Your task to perform on an android device: View the shopping cart on walmart. Search for "usb-a to usb-b" on walmart, select the first entry, add it to the cart, then select checkout. Image 0: 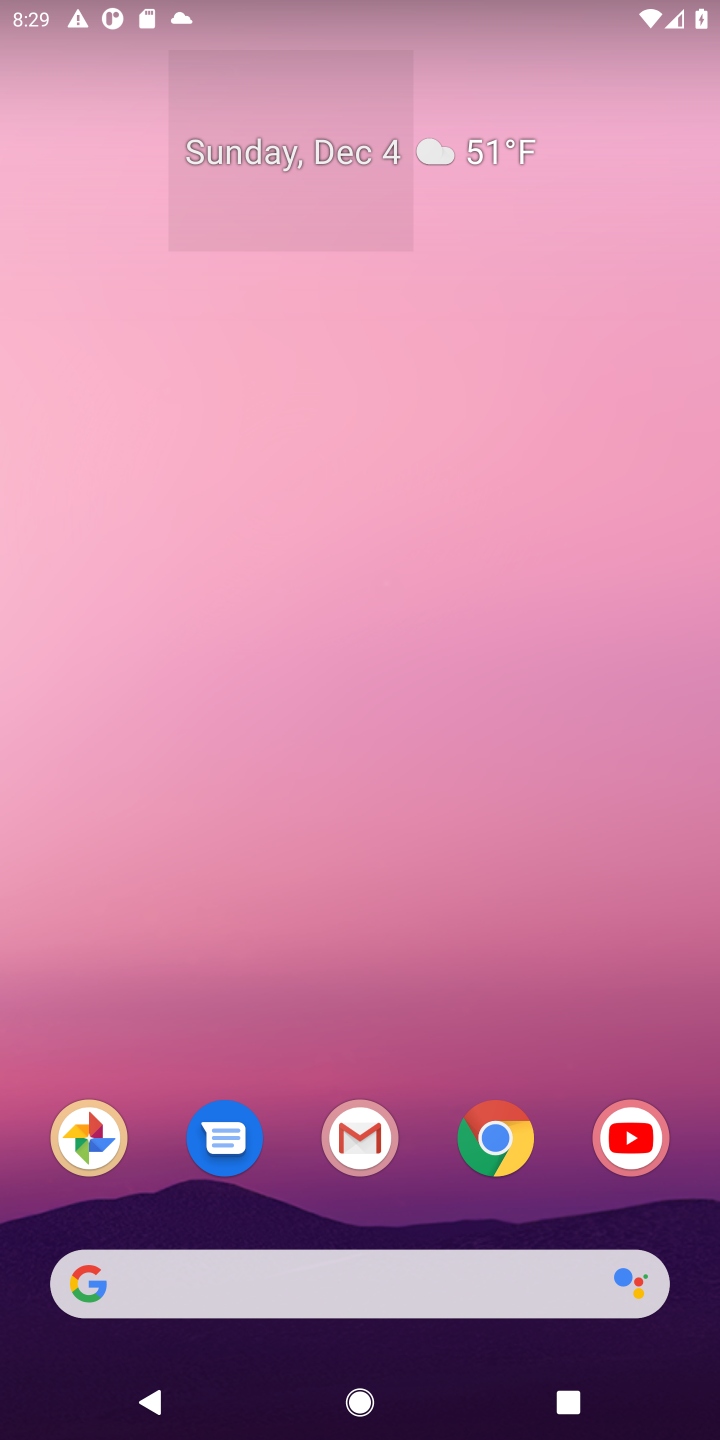
Step 0: click (511, 1161)
Your task to perform on an android device: View the shopping cart on walmart. Search for "usb-a to usb-b" on walmart, select the first entry, add it to the cart, then select checkout. Image 1: 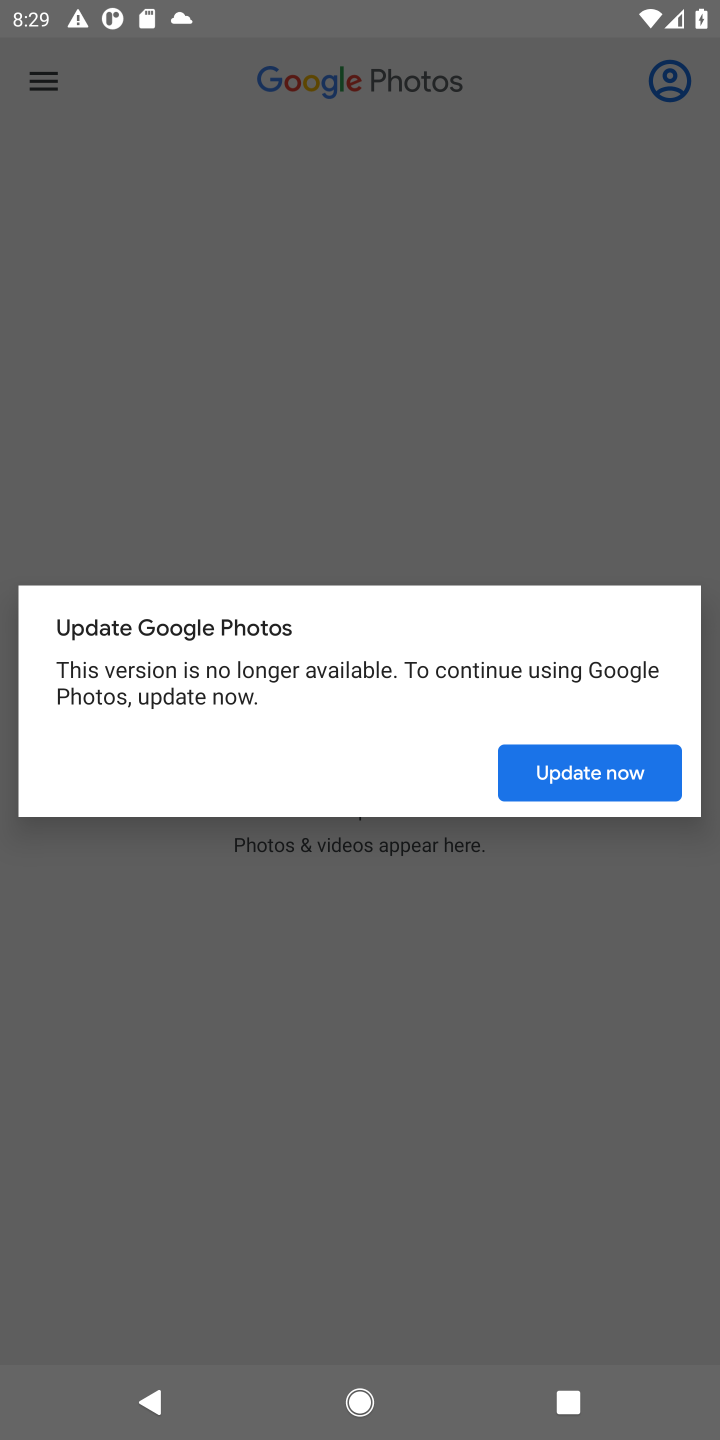
Step 1: press home button
Your task to perform on an android device: View the shopping cart on walmart. Search for "usb-a to usb-b" on walmart, select the first entry, add it to the cart, then select checkout. Image 2: 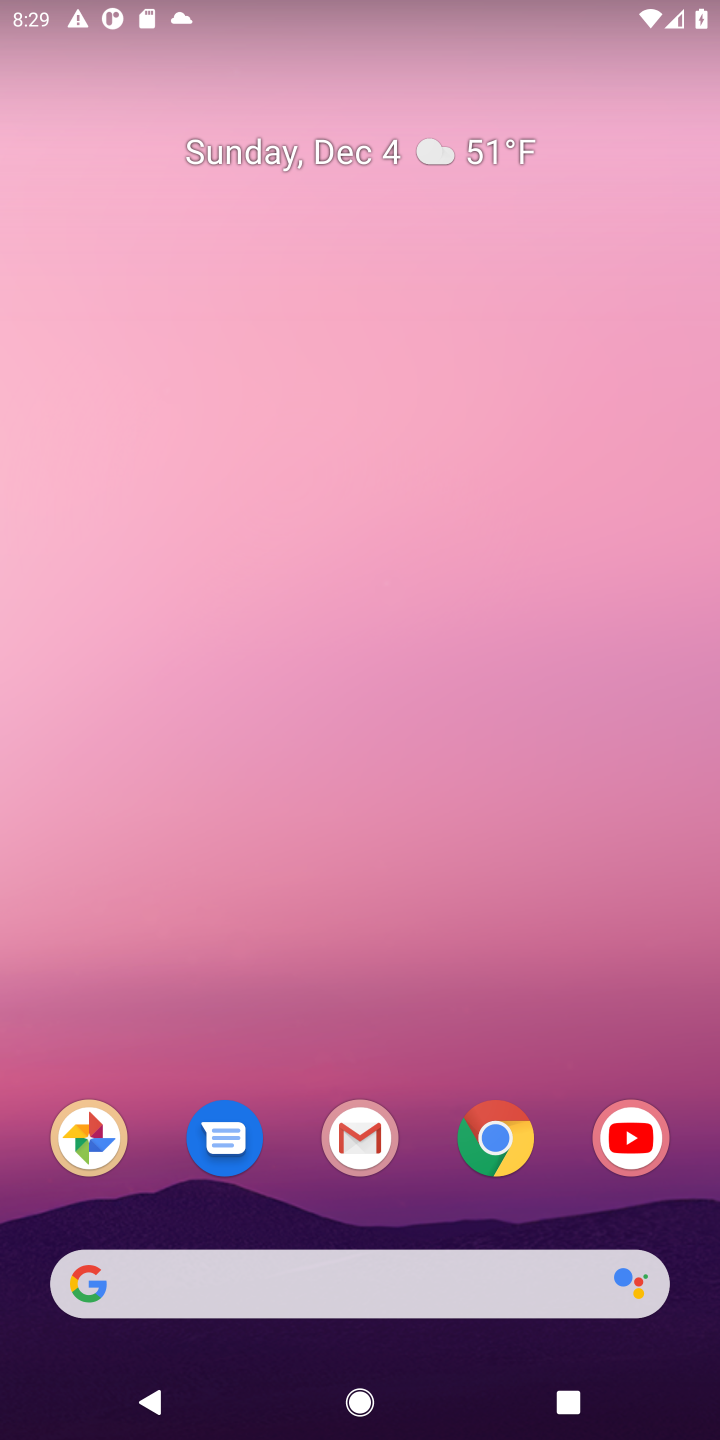
Step 2: click (487, 1137)
Your task to perform on an android device: View the shopping cart on walmart. Search for "usb-a to usb-b" on walmart, select the first entry, add it to the cart, then select checkout. Image 3: 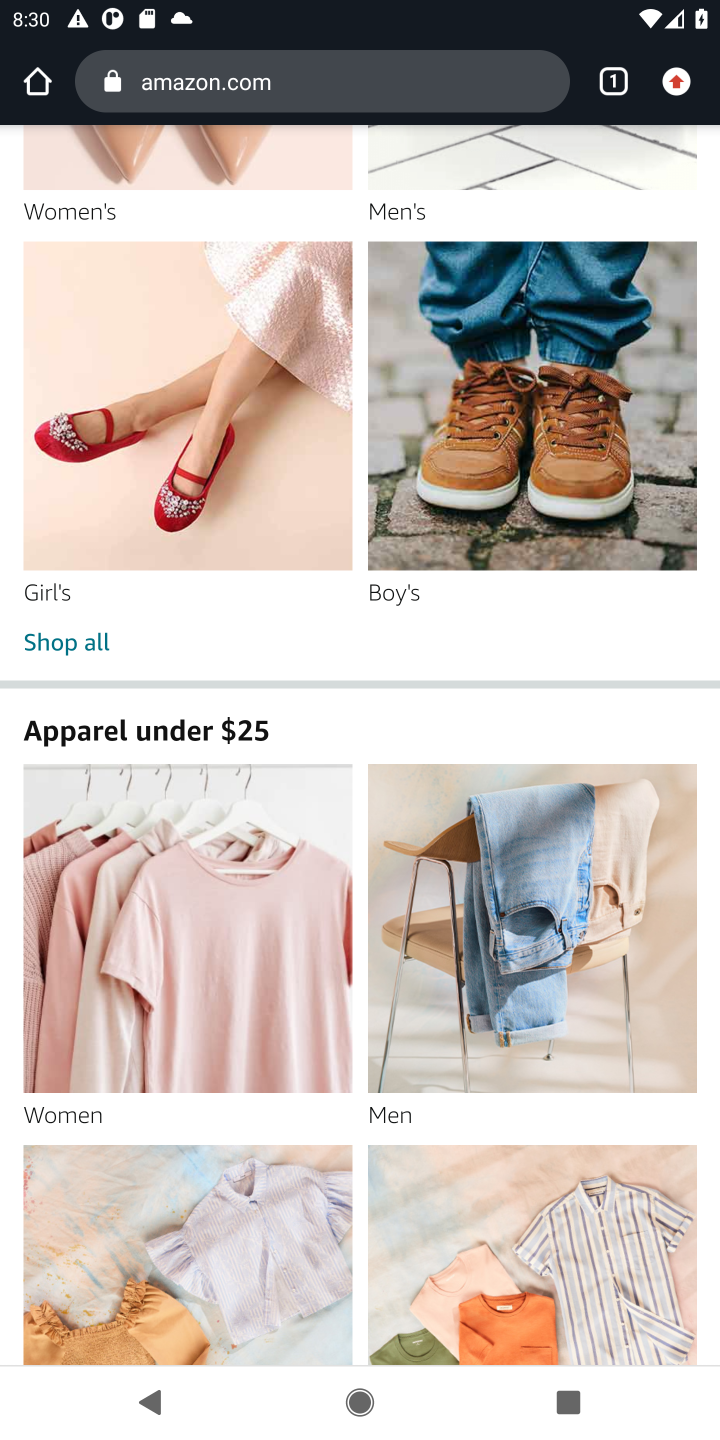
Step 3: click (473, 73)
Your task to perform on an android device: View the shopping cart on walmart. Search for "usb-a to usb-b" on walmart, select the first entry, add it to the cart, then select checkout. Image 4: 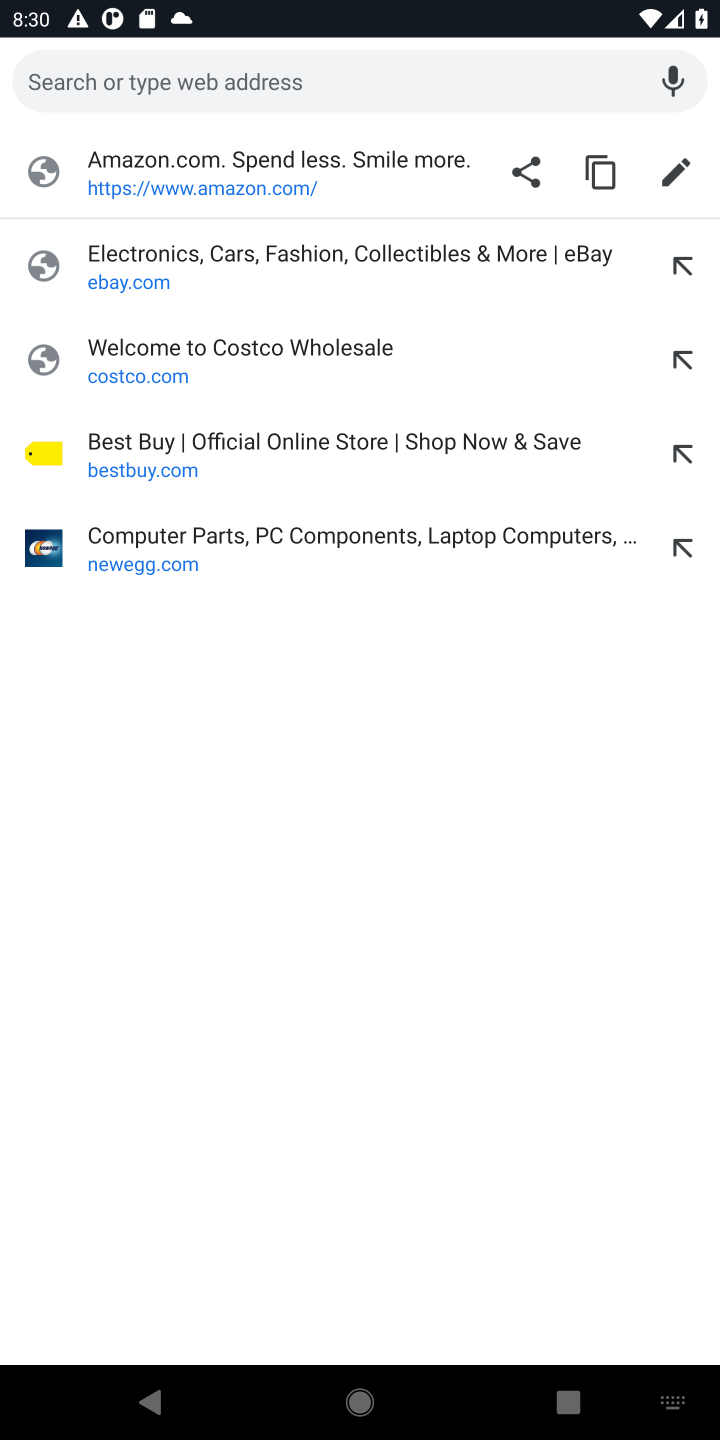
Step 4: press enter
Your task to perform on an android device: View the shopping cart on walmart. Search for "usb-a to usb-b" on walmart, select the first entry, add it to the cart, then select checkout. Image 5: 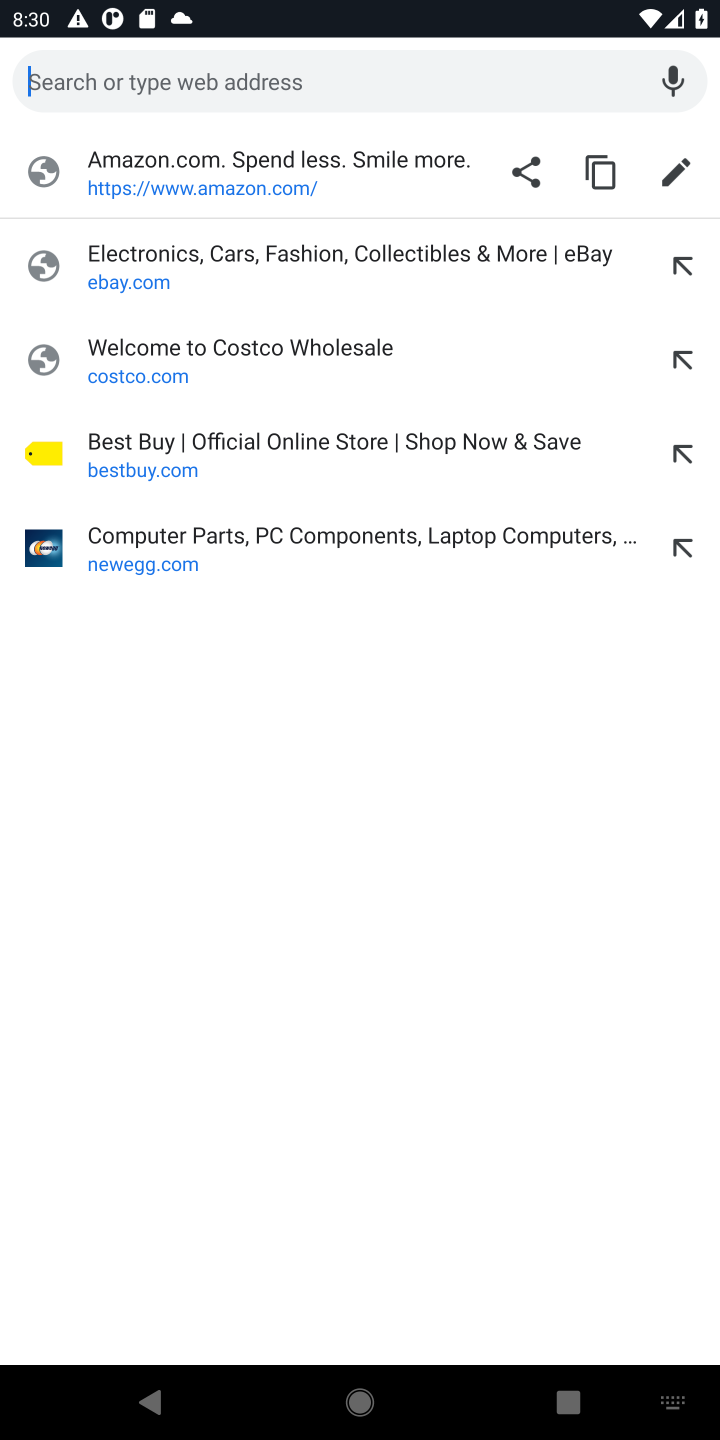
Step 5: type "walmart"
Your task to perform on an android device: View the shopping cart on walmart. Search for "usb-a to usb-b" on walmart, select the first entry, add it to the cart, then select checkout. Image 6: 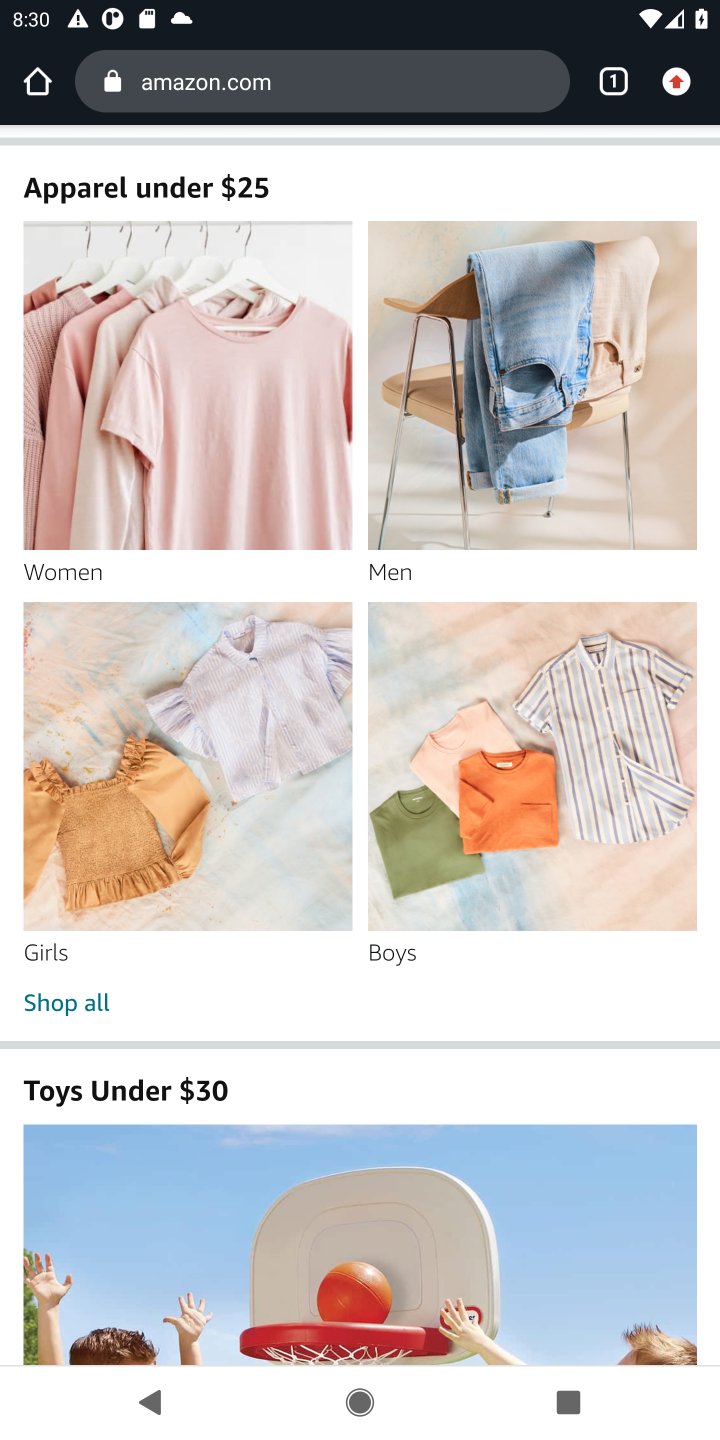
Step 6: click (396, 92)
Your task to perform on an android device: View the shopping cart on walmart. Search for "usb-a to usb-b" on walmart, select the first entry, add it to the cart, then select checkout. Image 7: 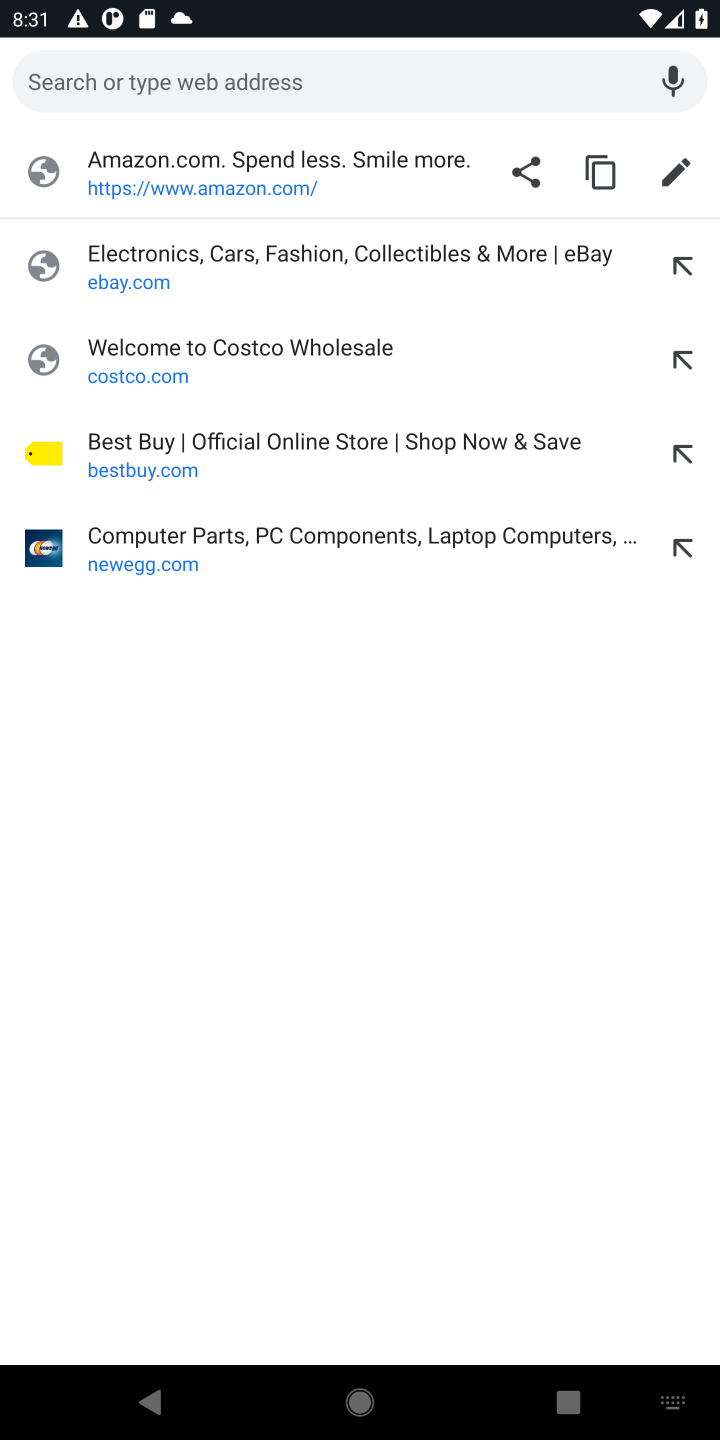
Step 7: type "walmart"
Your task to perform on an android device: View the shopping cart on walmart. Search for "usb-a to usb-b" on walmart, select the first entry, add it to the cart, then select checkout. Image 8: 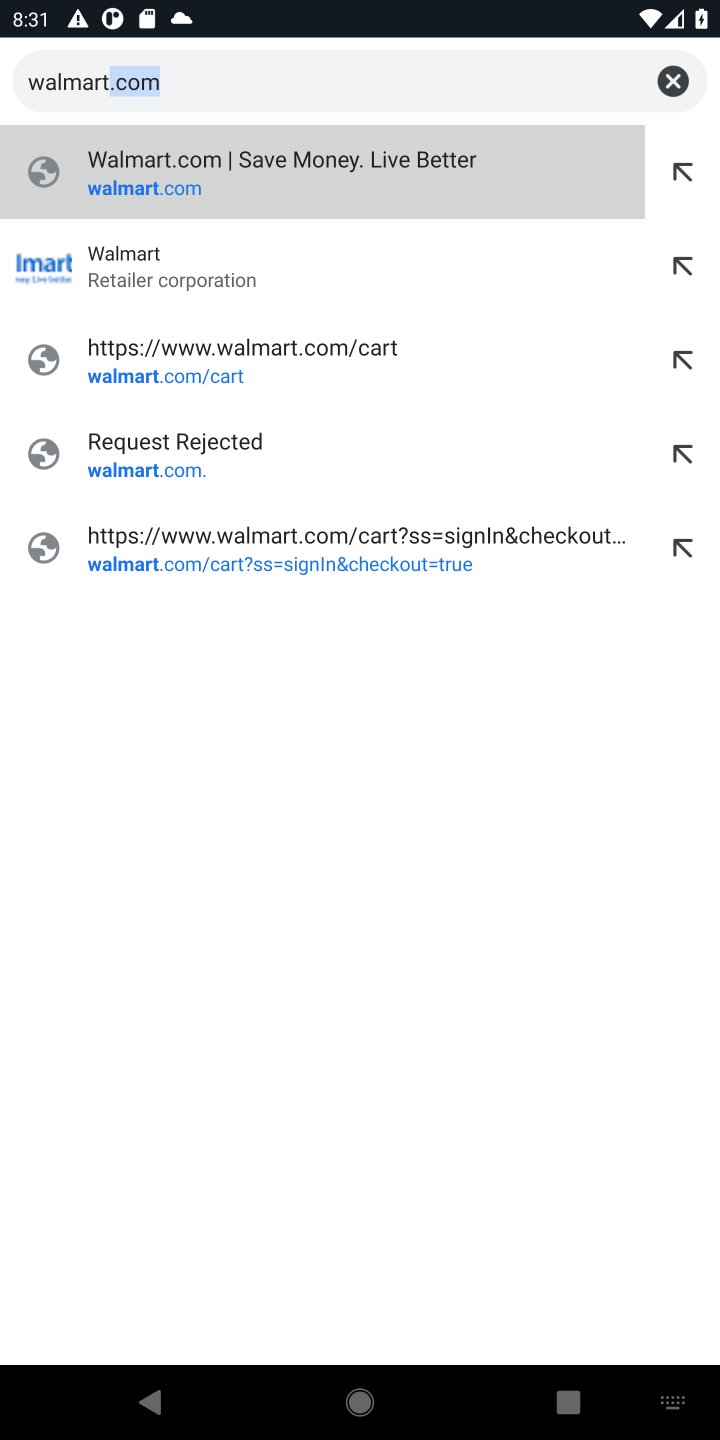
Step 8: press enter
Your task to perform on an android device: View the shopping cart on walmart. Search for "usb-a to usb-b" on walmart, select the first entry, add it to the cart, then select checkout. Image 9: 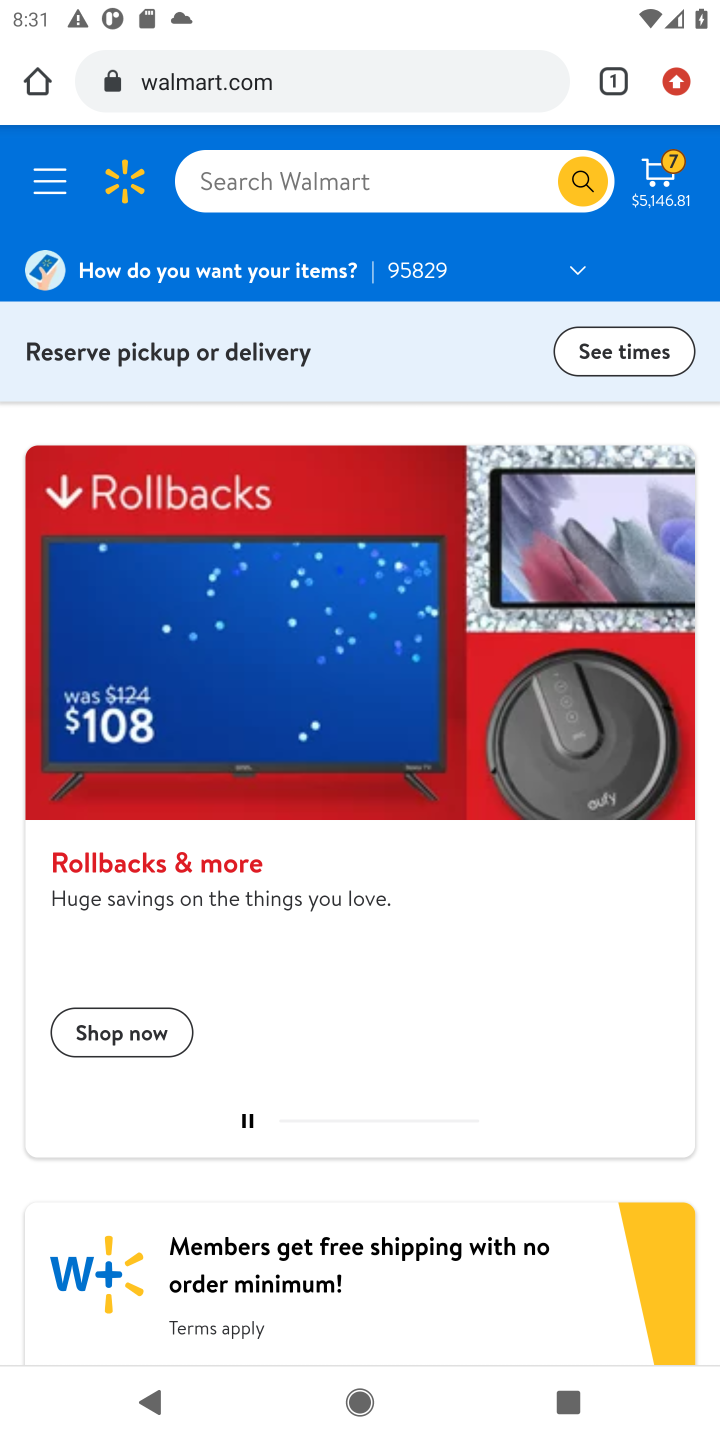
Step 9: click (641, 179)
Your task to perform on an android device: View the shopping cart on walmart. Search for "usb-a to usb-b" on walmart, select the first entry, add it to the cart, then select checkout. Image 10: 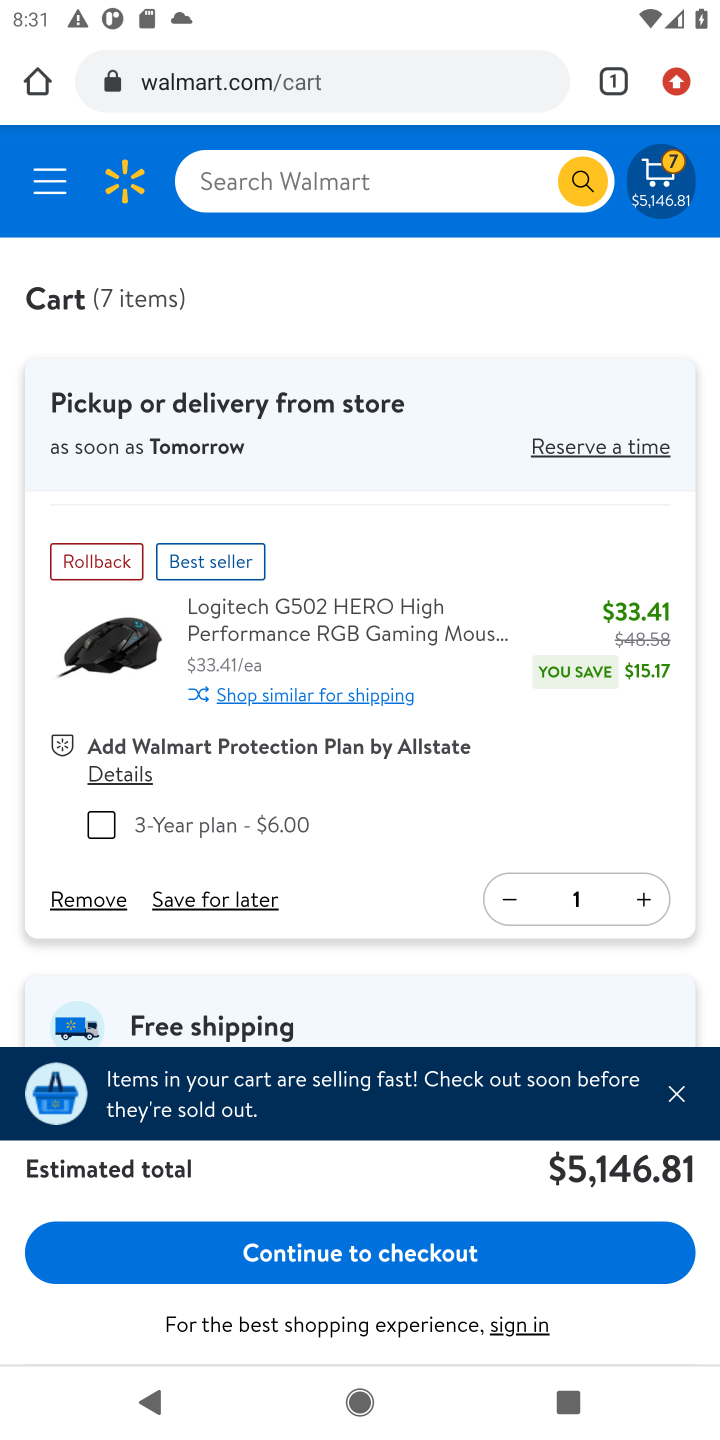
Step 10: click (491, 184)
Your task to perform on an android device: View the shopping cart on walmart. Search for "usb-a to usb-b" on walmart, select the first entry, add it to the cart, then select checkout. Image 11: 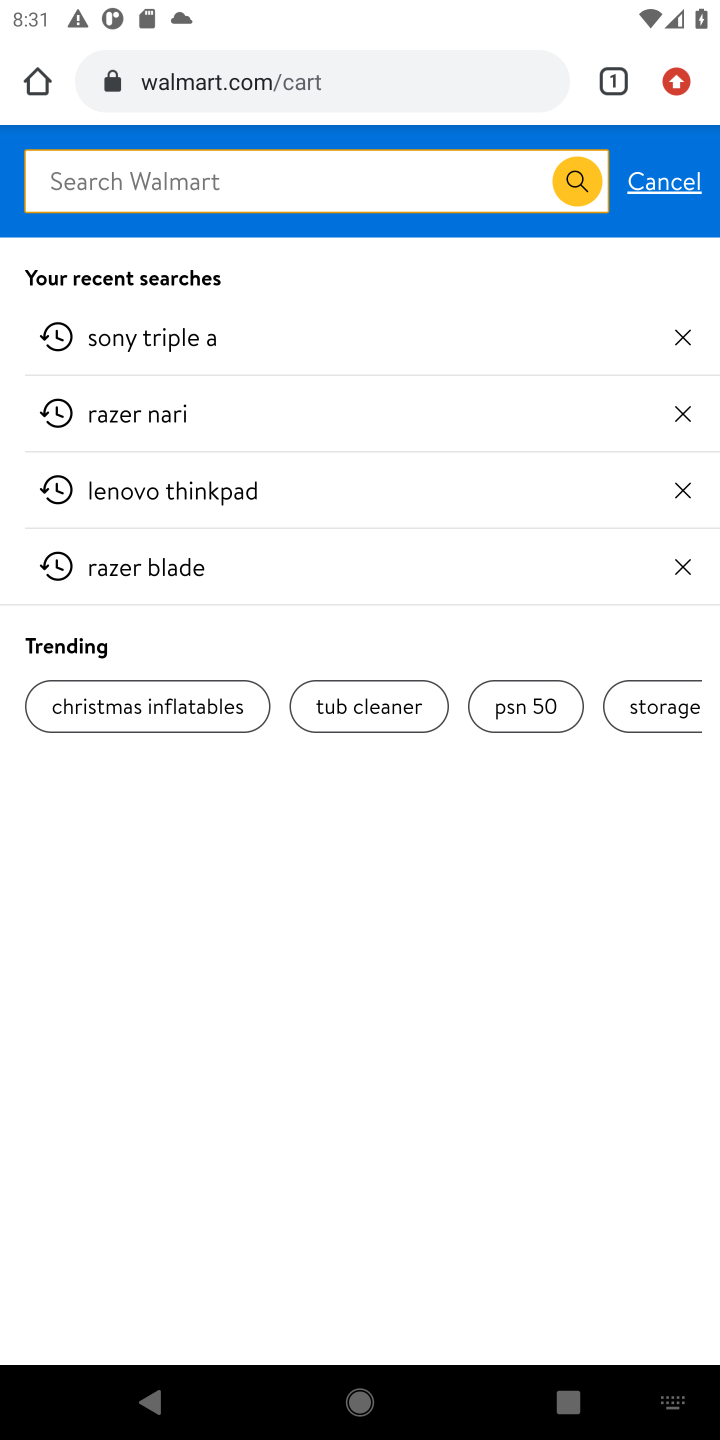
Step 11: type "usb-a to usb-b"
Your task to perform on an android device: View the shopping cart on walmart. Search for "usb-a to usb-b" on walmart, select the first entry, add it to the cart, then select checkout. Image 12: 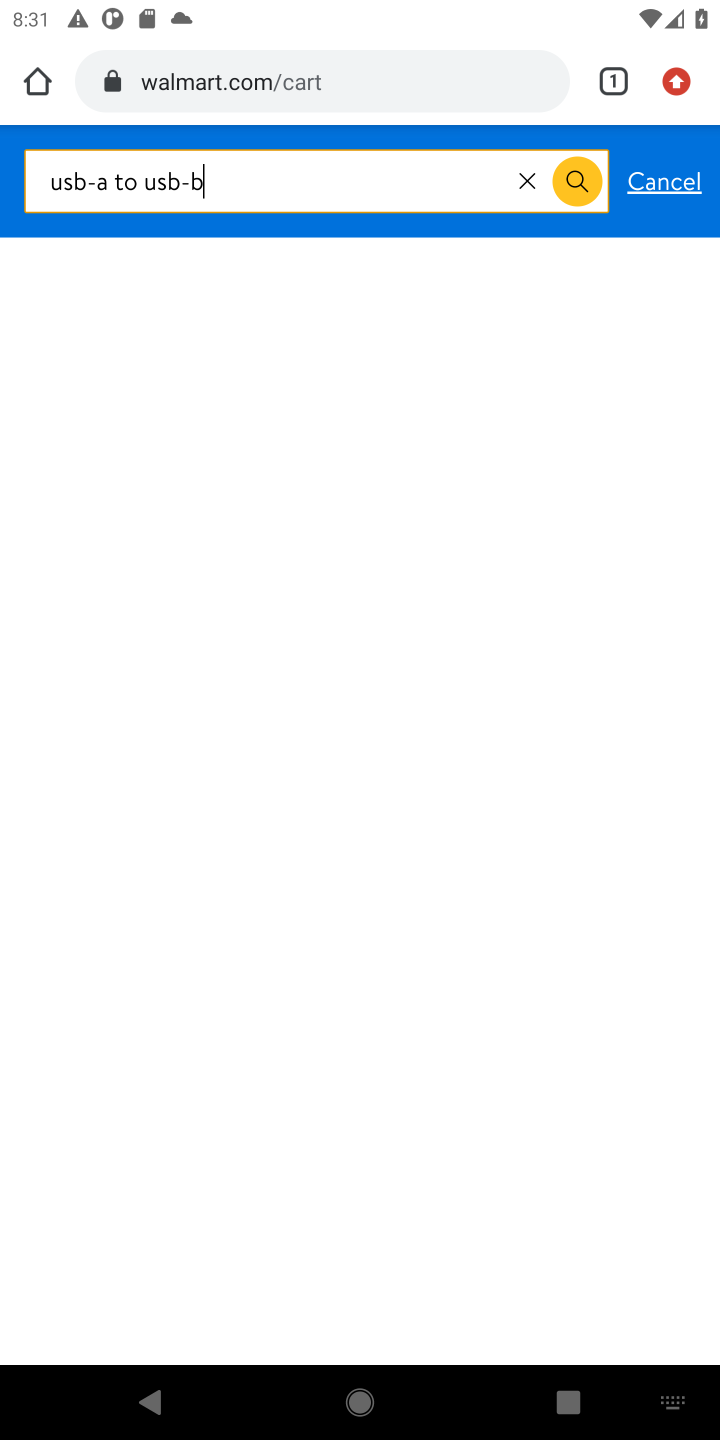
Step 12: press enter
Your task to perform on an android device: View the shopping cart on walmart. Search for "usb-a to usb-b" on walmart, select the first entry, add it to the cart, then select checkout. Image 13: 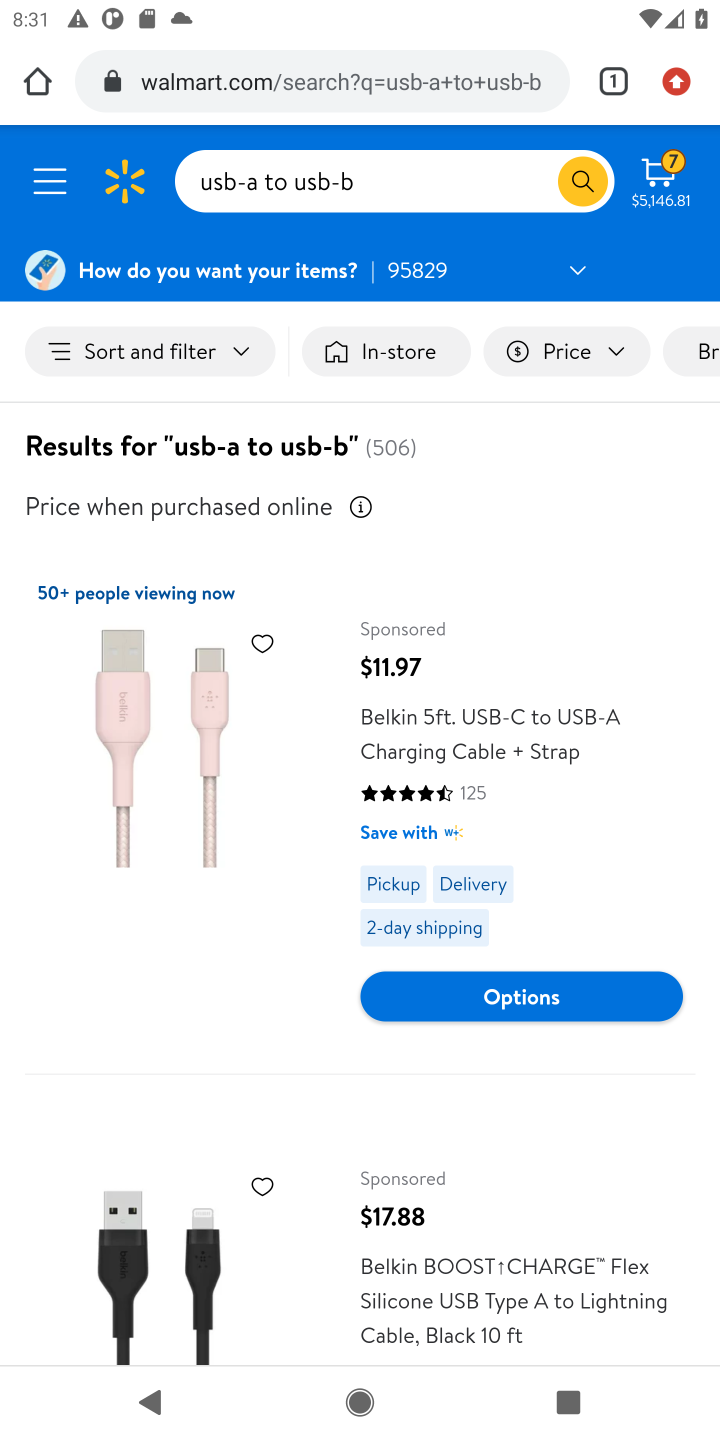
Step 13: drag from (514, 1125) to (588, 160)
Your task to perform on an android device: View the shopping cart on walmart. Search for "usb-a to usb-b" on walmart, select the first entry, add it to the cart, then select checkout. Image 14: 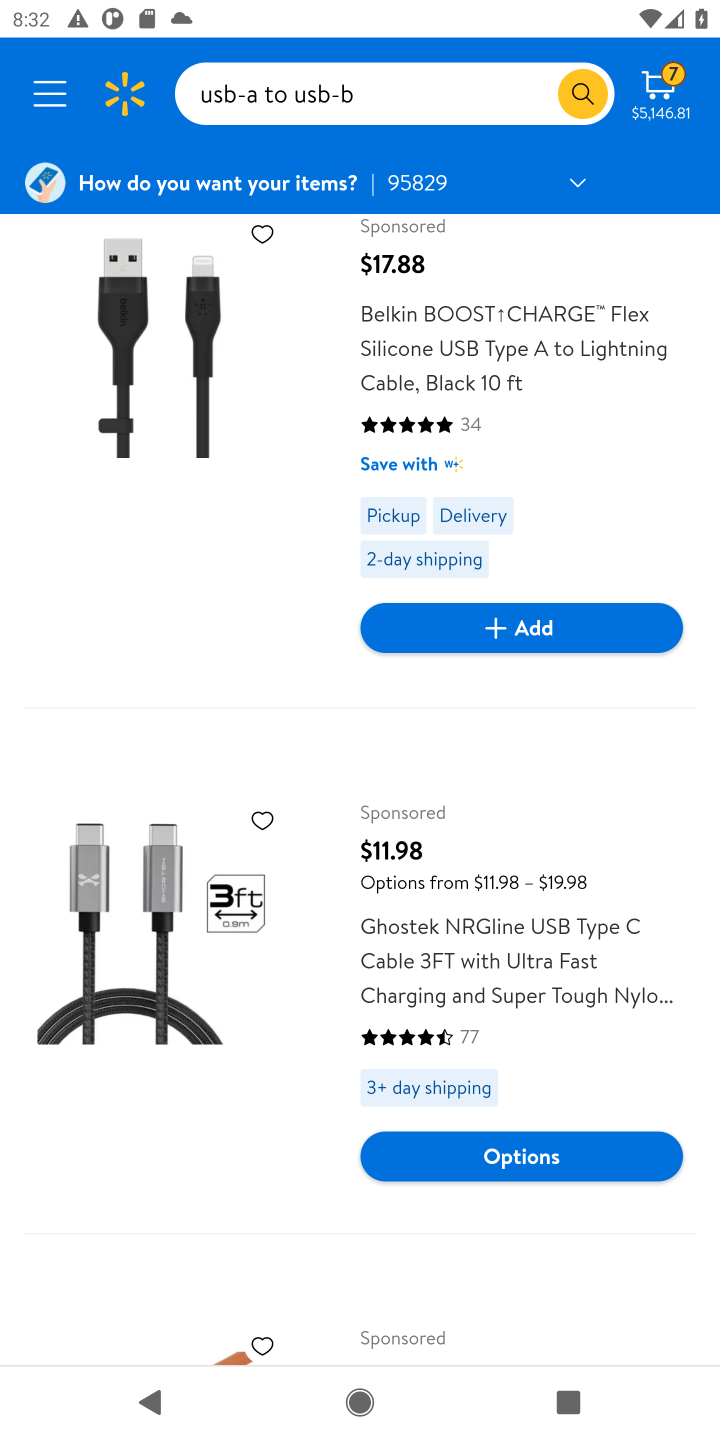
Step 14: drag from (237, 1035) to (236, 317)
Your task to perform on an android device: View the shopping cart on walmart. Search for "usb-a to usb-b" on walmart, select the first entry, add it to the cart, then select checkout. Image 15: 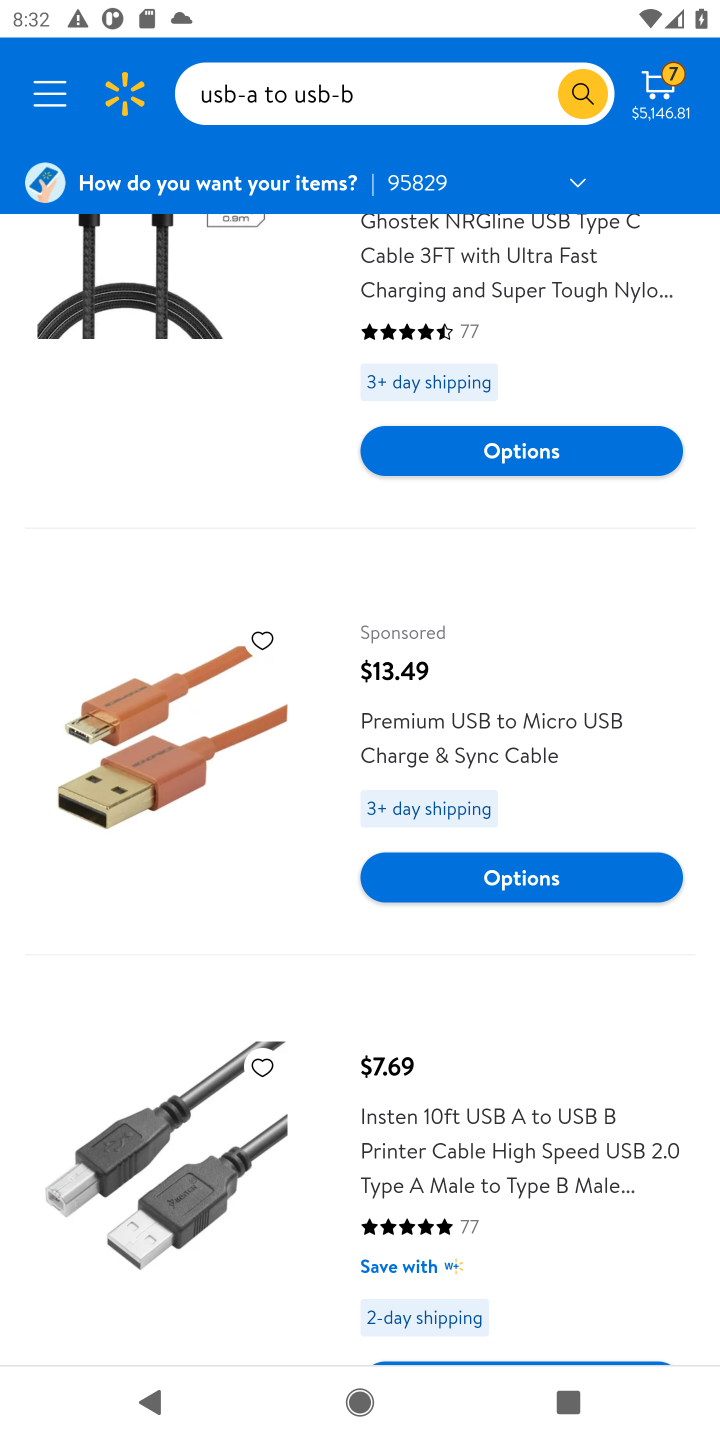
Step 15: drag from (178, 947) to (196, 552)
Your task to perform on an android device: View the shopping cart on walmart. Search for "usb-a to usb-b" on walmart, select the first entry, add it to the cart, then select checkout. Image 16: 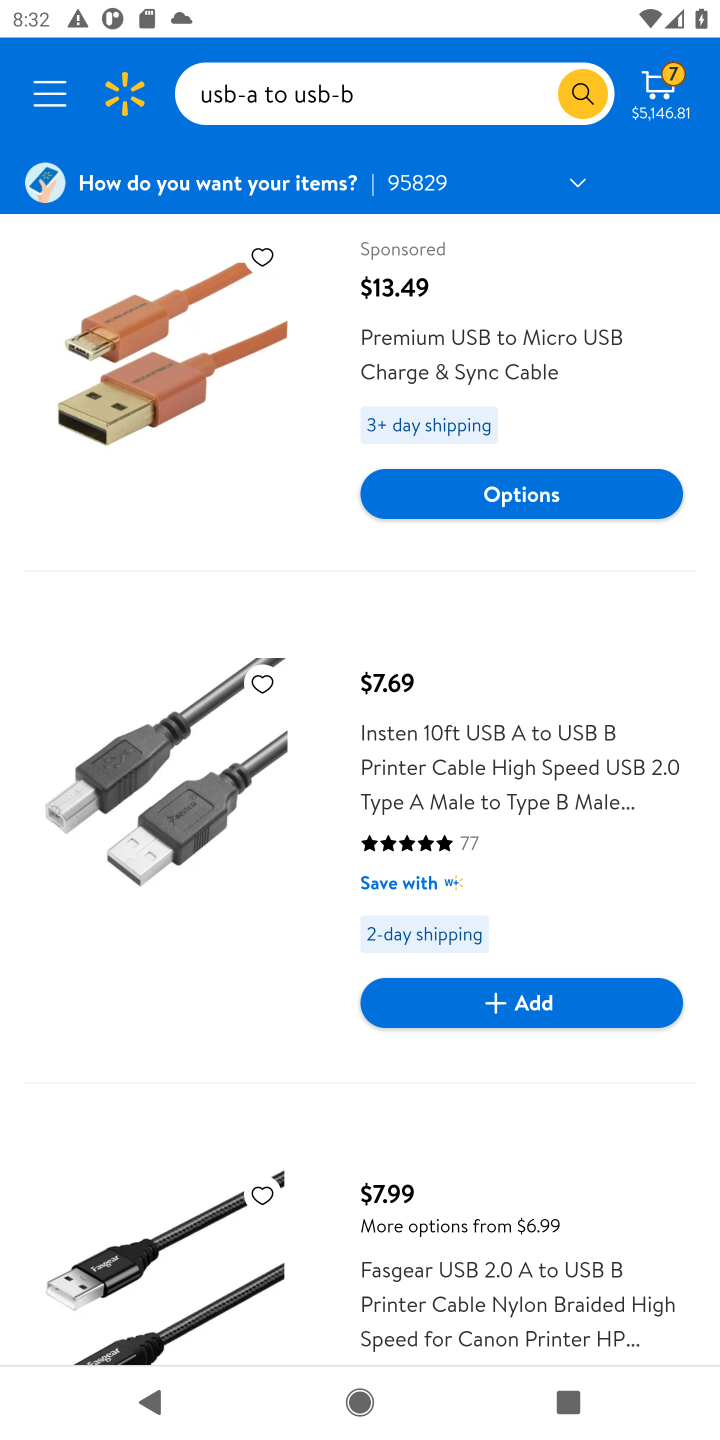
Step 16: click (123, 782)
Your task to perform on an android device: View the shopping cart on walmart. Search for "usb-a to usb-b" on walmart, select the first entry, add it to the cart, then select checkout. Image 17: 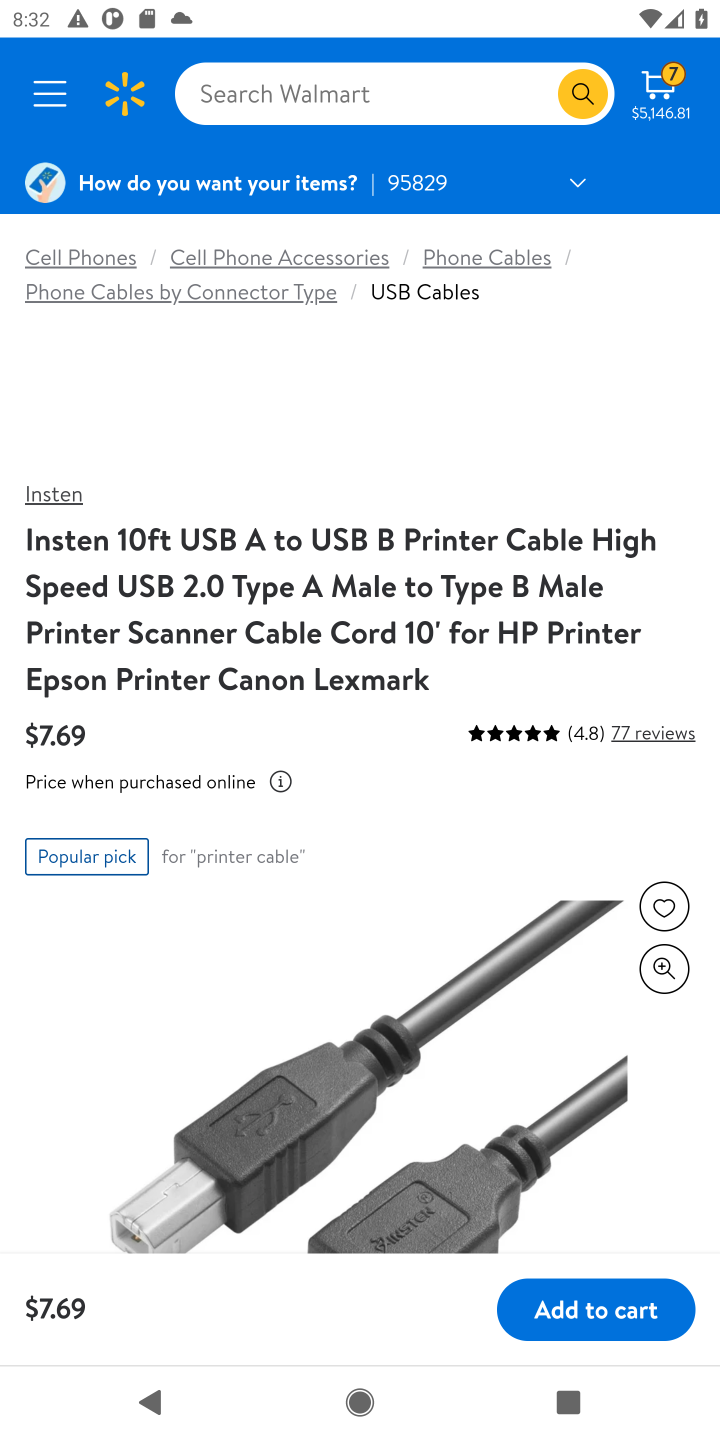
Step 17: click (579, 1320)
Your task to perform on an android device: View the shopping cart on walmart. Search for "usb-a to usb-b" on walmart, select the first entry, add it to the cart, then select checkout. Image 18: 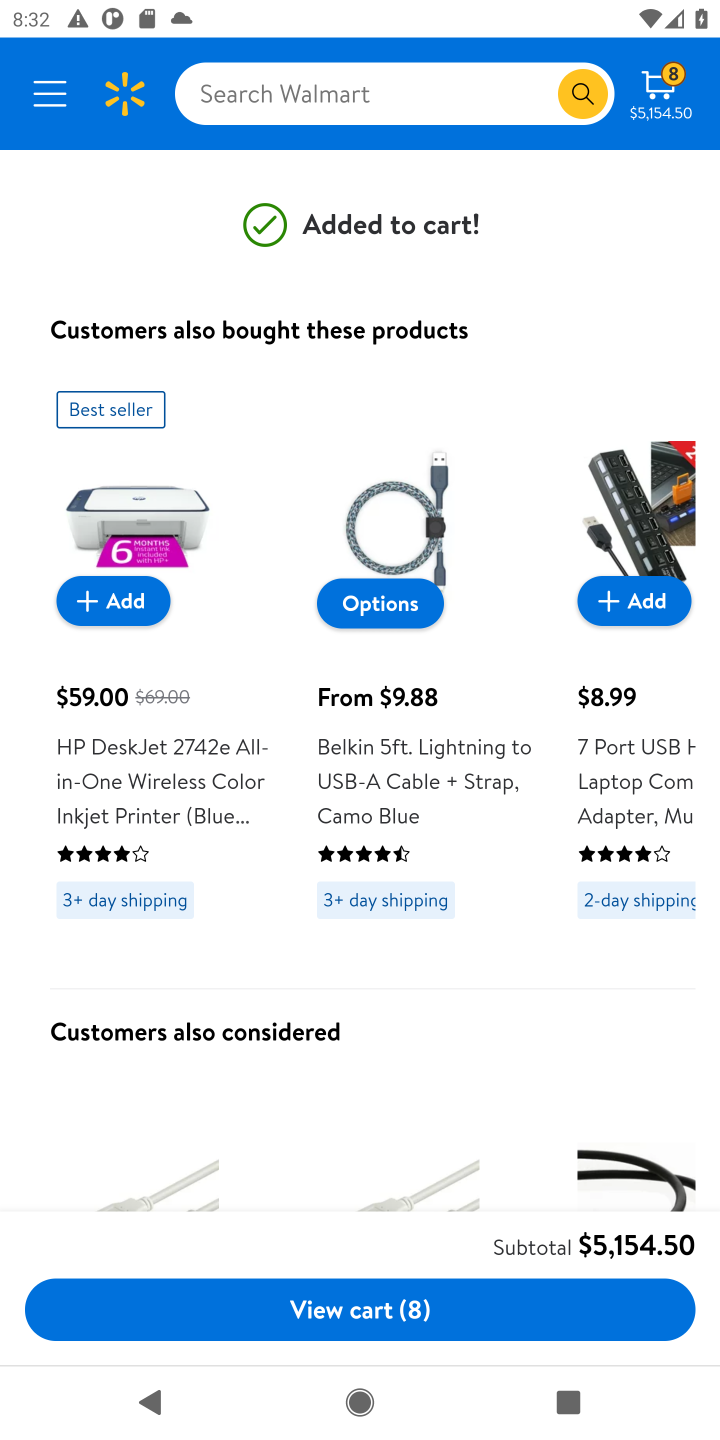
Step 18: click (310, 1291)
Your task to perform on an android device: View the shopping cart on walmart. Search for "usb-a to usb-b" on walmart, select the first entry, add it to the cart, then select checkout. Image 19: 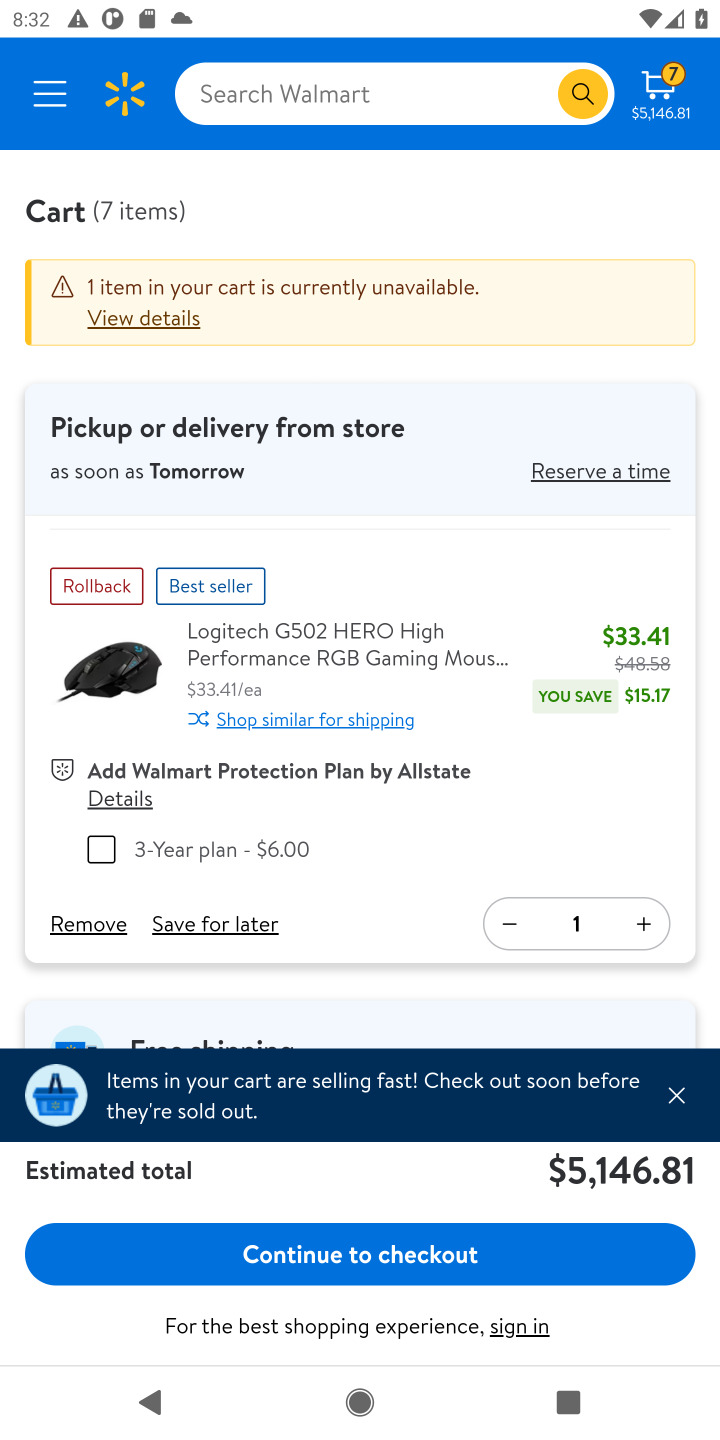
Step 19: drag from (424, 801) to (465, 368)
Your task to perform on an android device: View the shopping cart on walmart. Search for "usb-a to usb-b" on walmart, select the first entry, add it to the cart, then select checkout. Image 20: 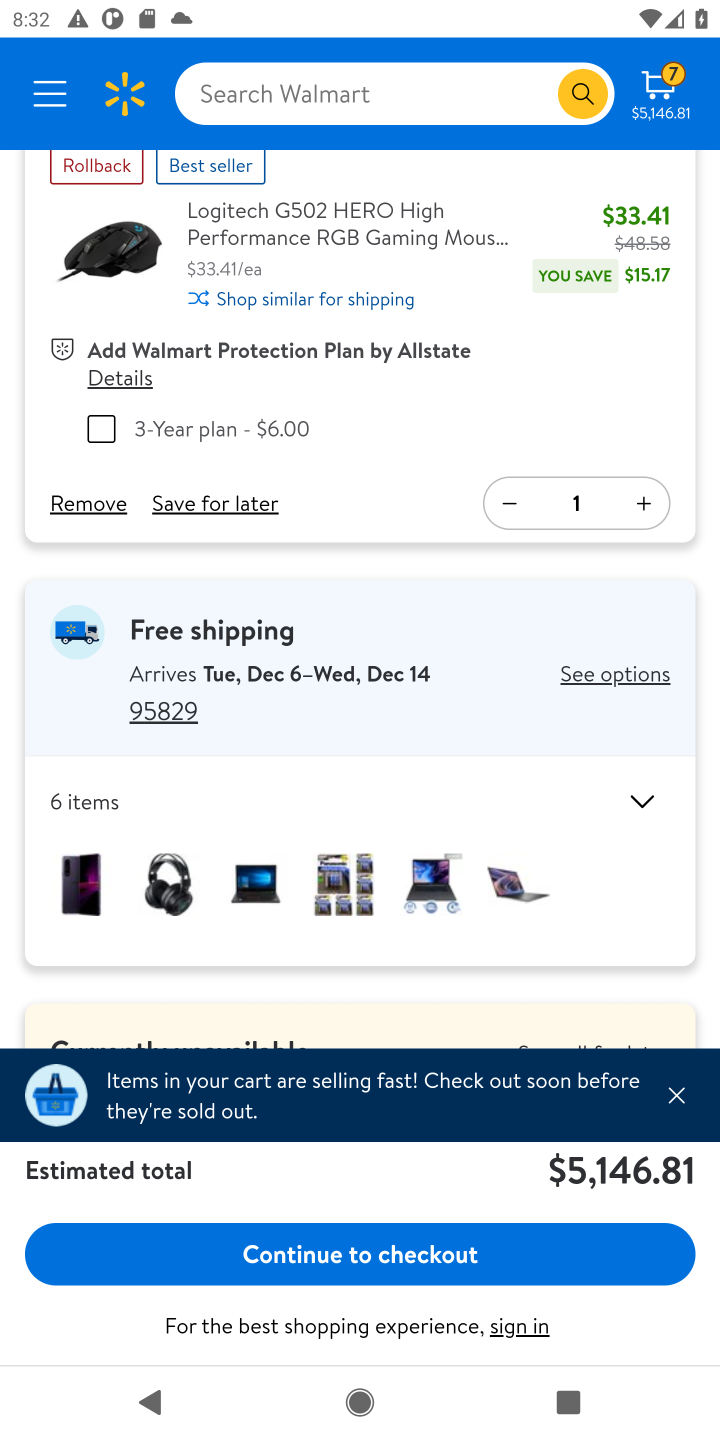
Step 20: drag from (558, 944) to (506, 350)
Your task to perform on an android device: View the shopping cart on walmart. Search for "usb-a to usb-b" on walmart, select the first entry, add it to the cart, then select checkout. Image 21: 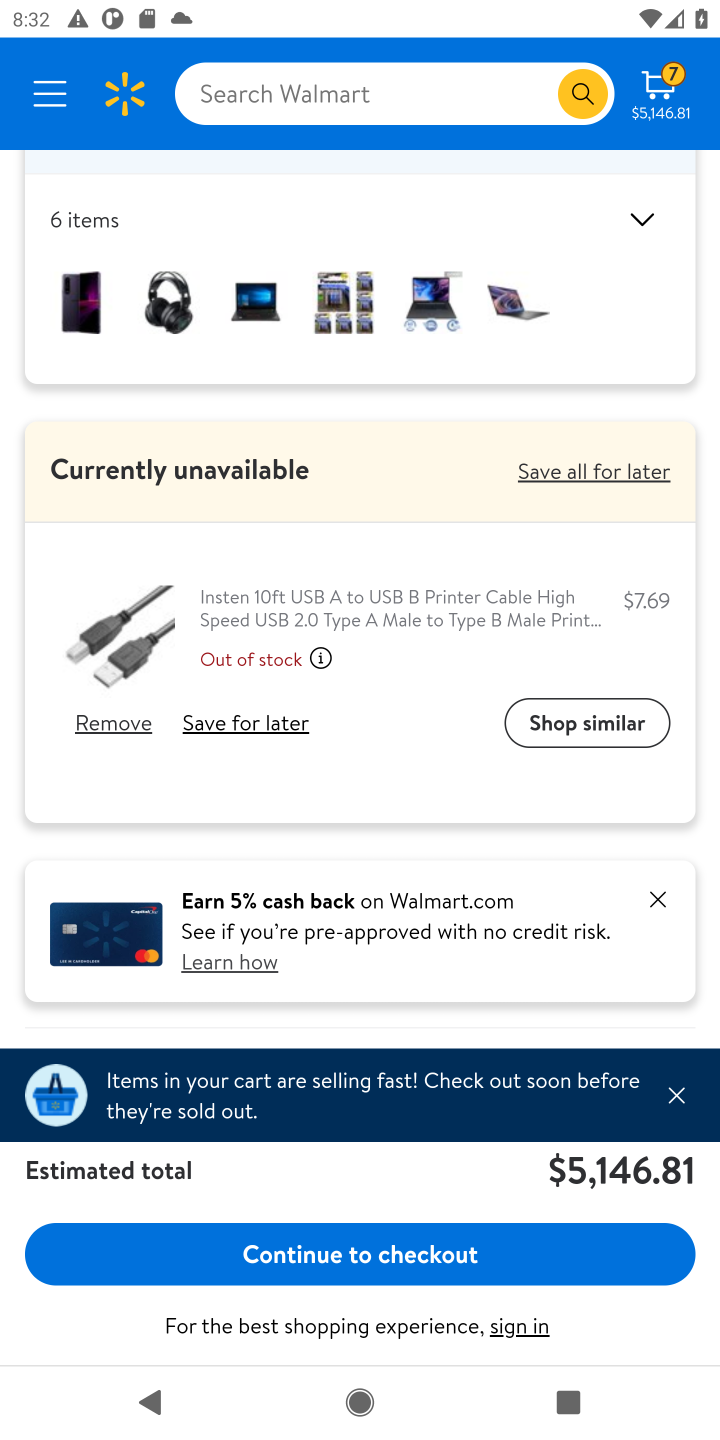
Step 21: drag from (547, 978) to (582, 177)
Your task to perform on an android device: View the shopping cart on walmart. Search for "usb-a to usb-b" on walmart, select the first entry, add it to the cart, then select checkout. Image 22: 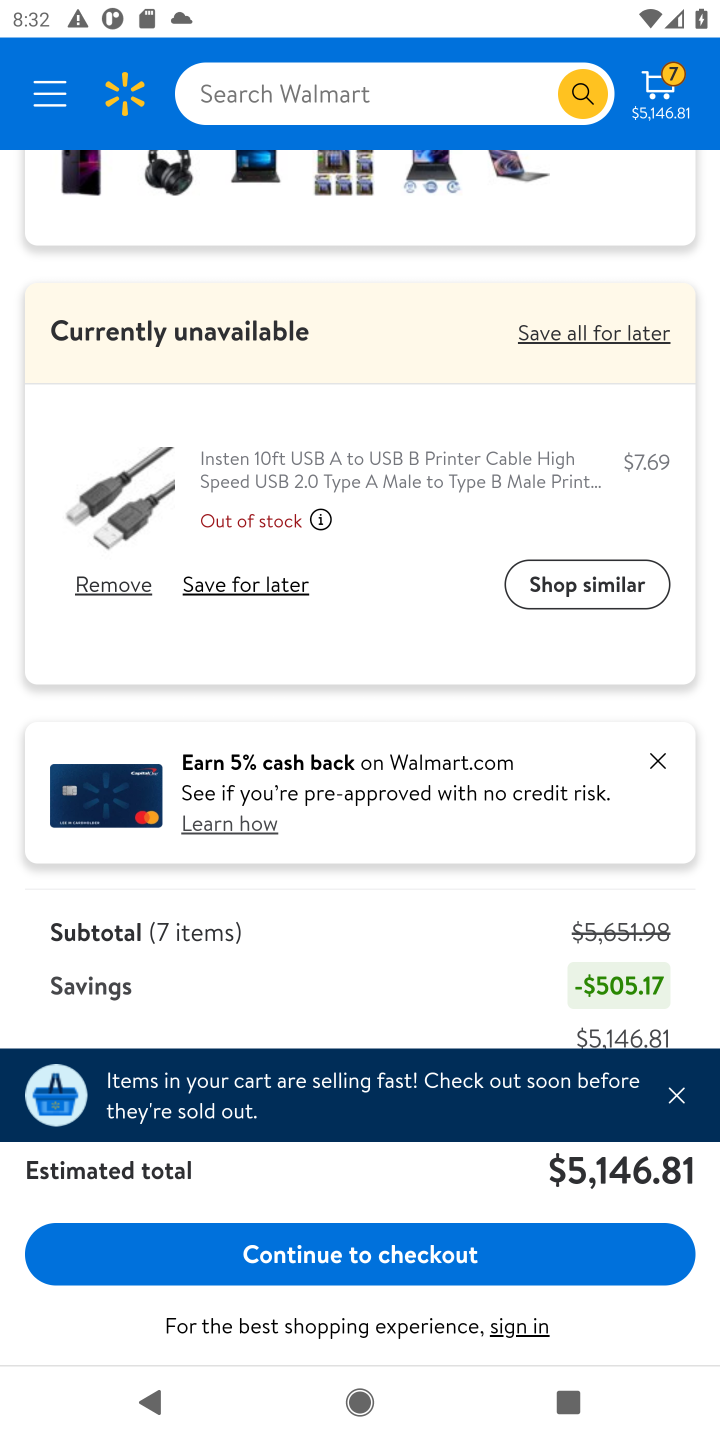
Step 22: click (434, 1256)
Your task to perform on an android device: View the shopping cart on walmart. Search for "usb-a to usb-b" on walmart, select the first entry, add it to the cart, then select checkout. Image 23: 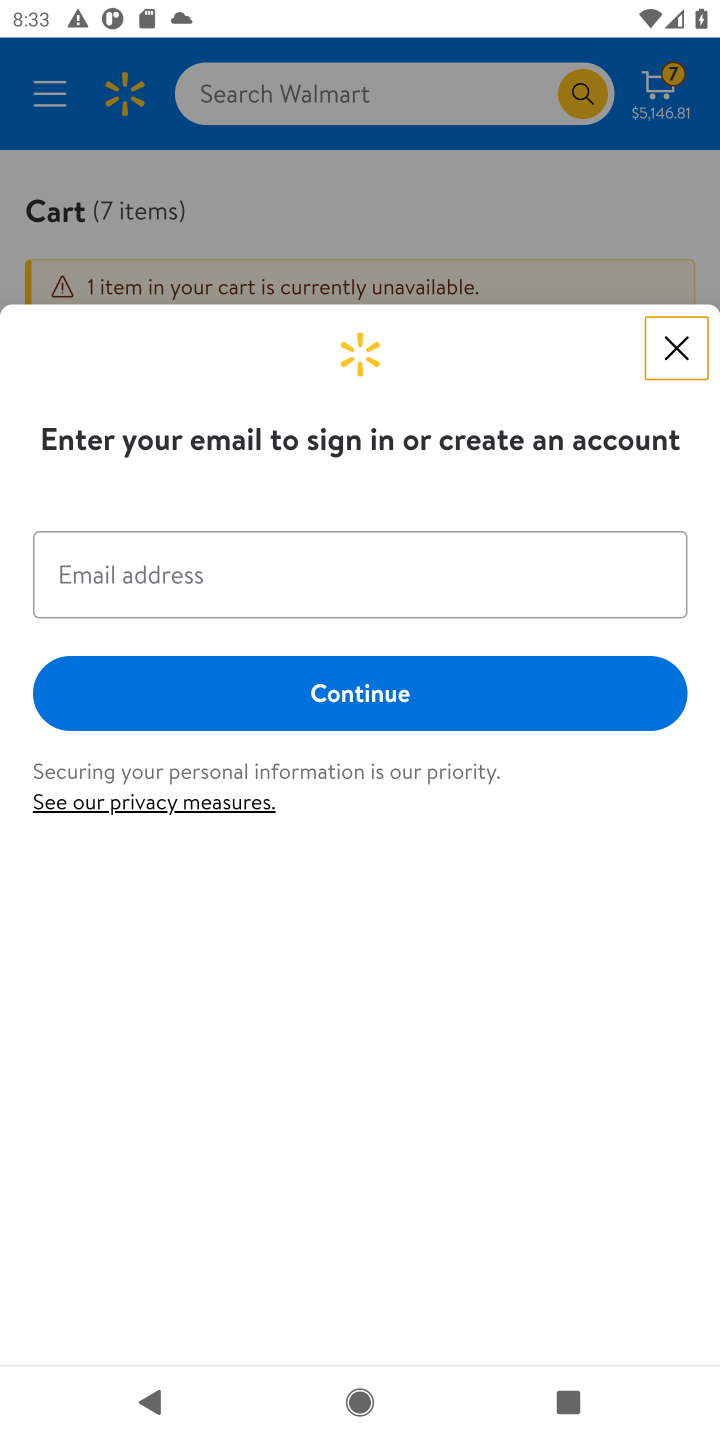
Step 23: task complete